Your task to perform on an android device: read, delete, or share a saved page in the chrome app Image 0: 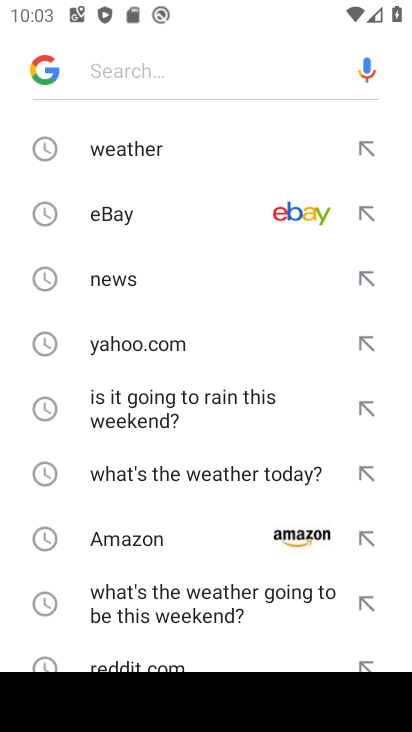
Step 0: press home button
Your task to perform on an android device: read, delete, or share a saved page in the chrome app Image 1: 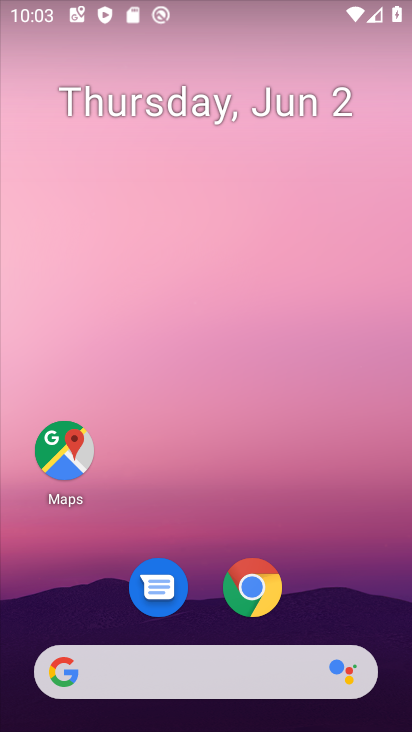
Step 1: click (236, 580)
Your task to perform on an android device: read, delete, or share a saved page in the chrome app Image 2: 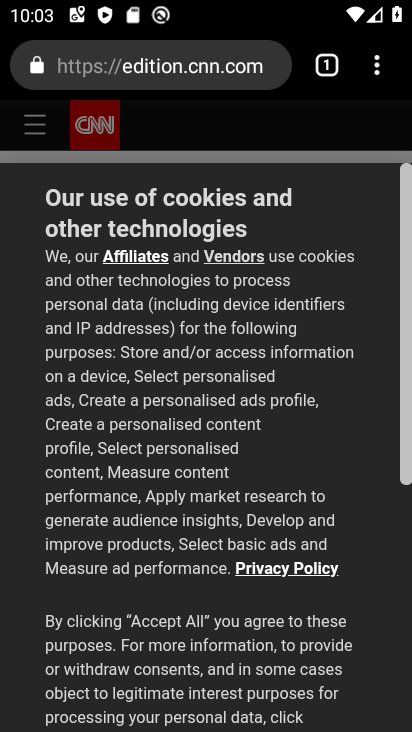
Step 2: click (371, 76)
Your task to perform on an android device: read, delete, or share a saved page in the chrome app Image 3: 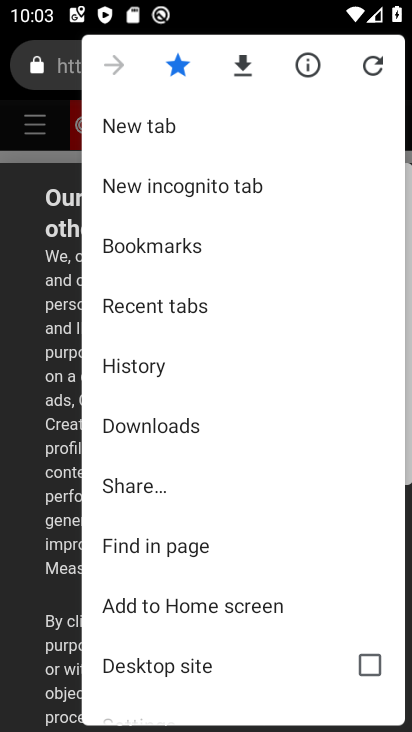
Step 3: drag from (195, 630) to (185, 479)
Your task to perform on an android device: read, delete, or share a saved page in the chrome app Image 4: 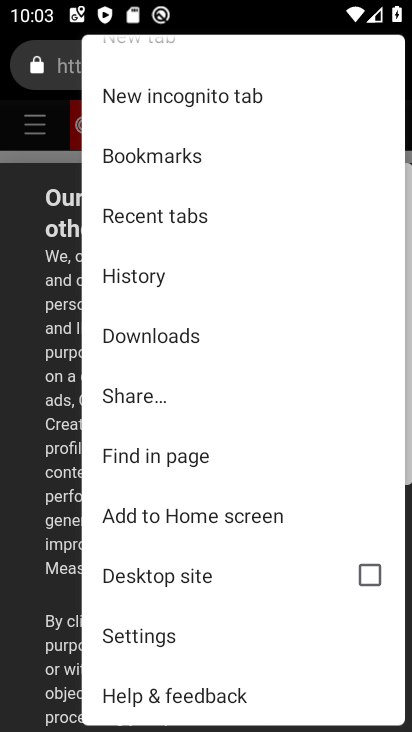
Step 4: click (172, 335)
Your task to perform on an android device: read, delete, or share a saved page in the chrome app Image 5: 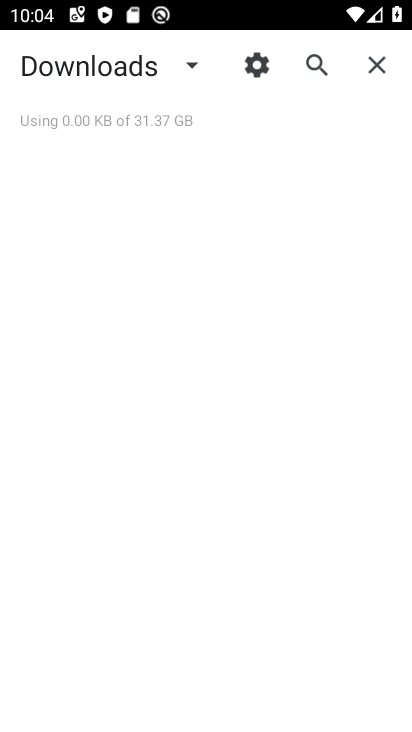
Step 5: task complete